Your task to perform on an android device: Open Google Maps Image 0: 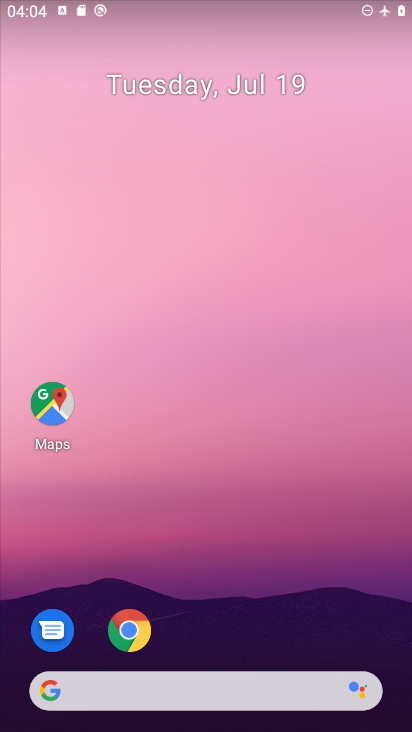
Step 0: click (55, 404)
Your task to perform on an android device: Open Google Maps Image 1: 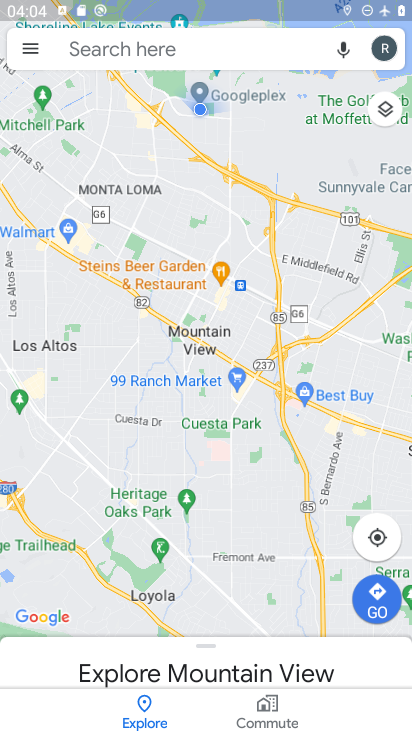
Step 1: task complete